Your task to perform on an android device: Go to sound settings Image 0: 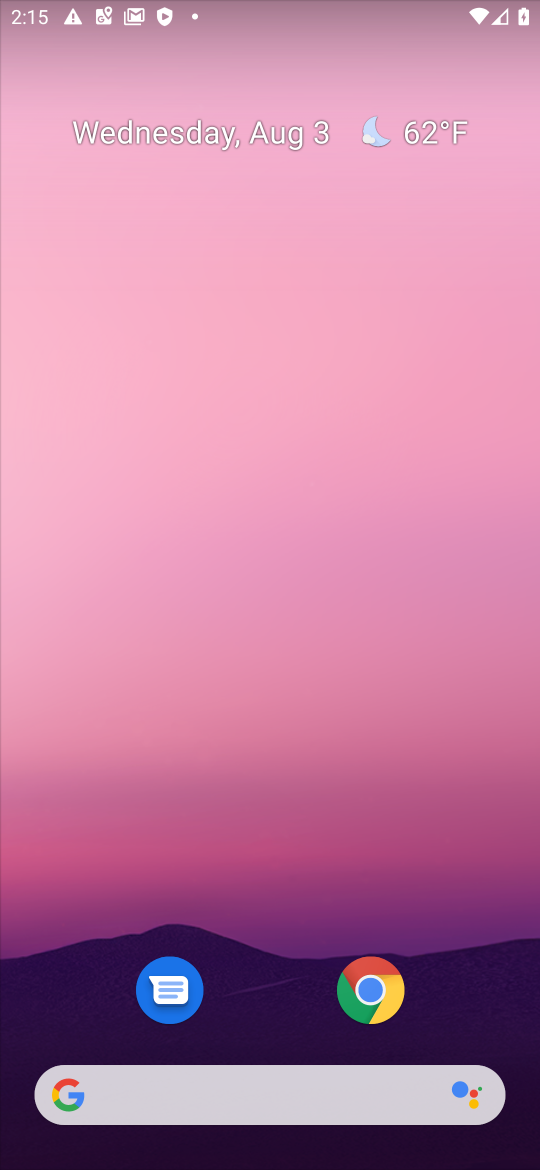
Step 0: drag from (230, 1003) to (258, 401)
Your task to perform on an android device: Go to sound settings Image 1: 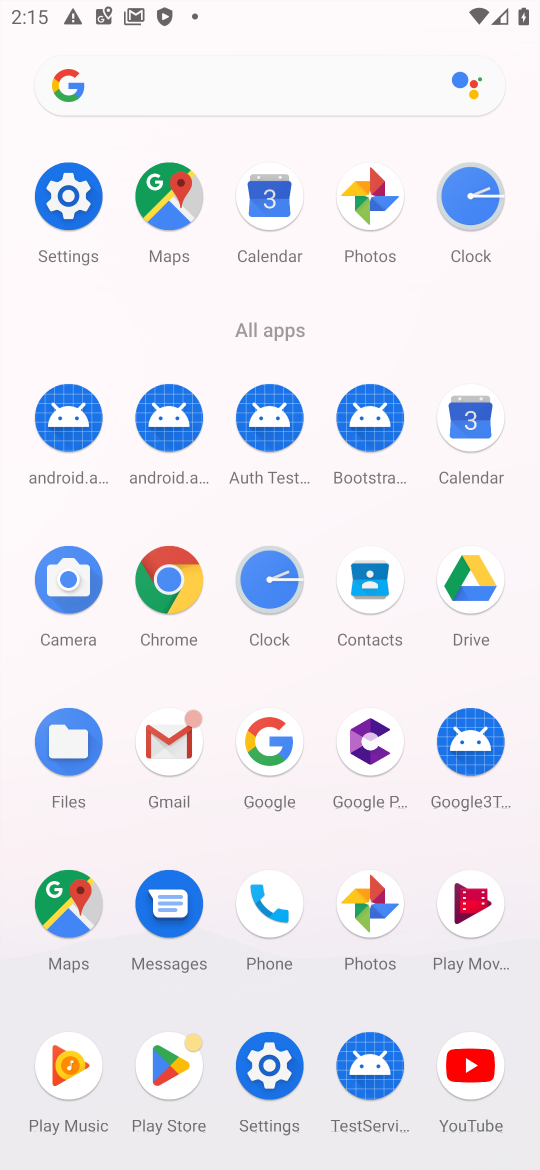
Step 1: click (76, 194)
Your task to perform on an android device: Go to sound settings Image 2: 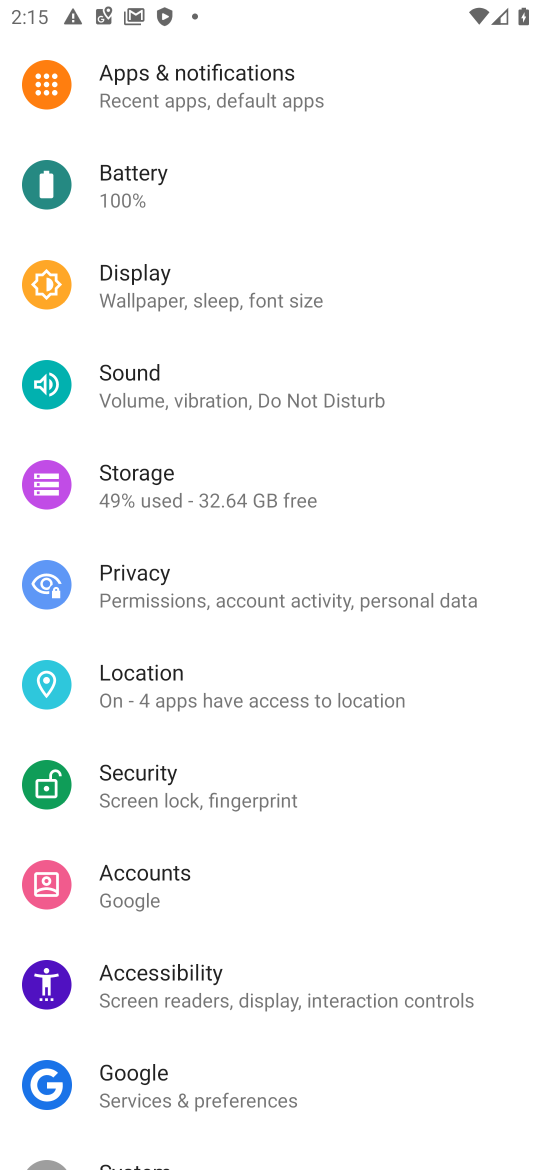
Step 2: click (129, 387)
Your task to perform on an android device: Go to sound settings Image 3: 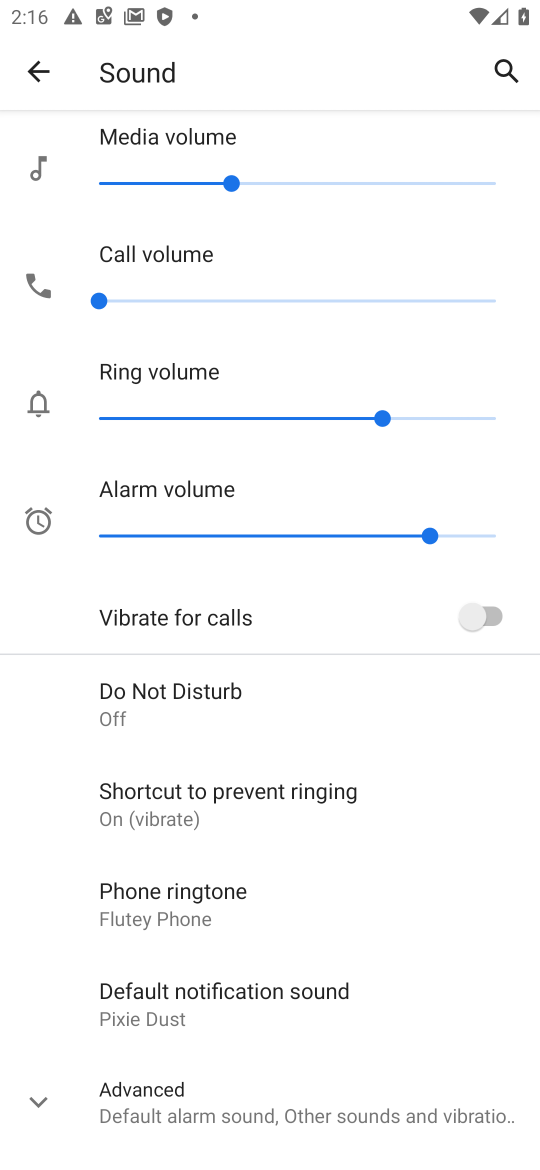
Step 3: click (157, 1087)
Your task to perform on an android device: Go to sound settings Image 4: 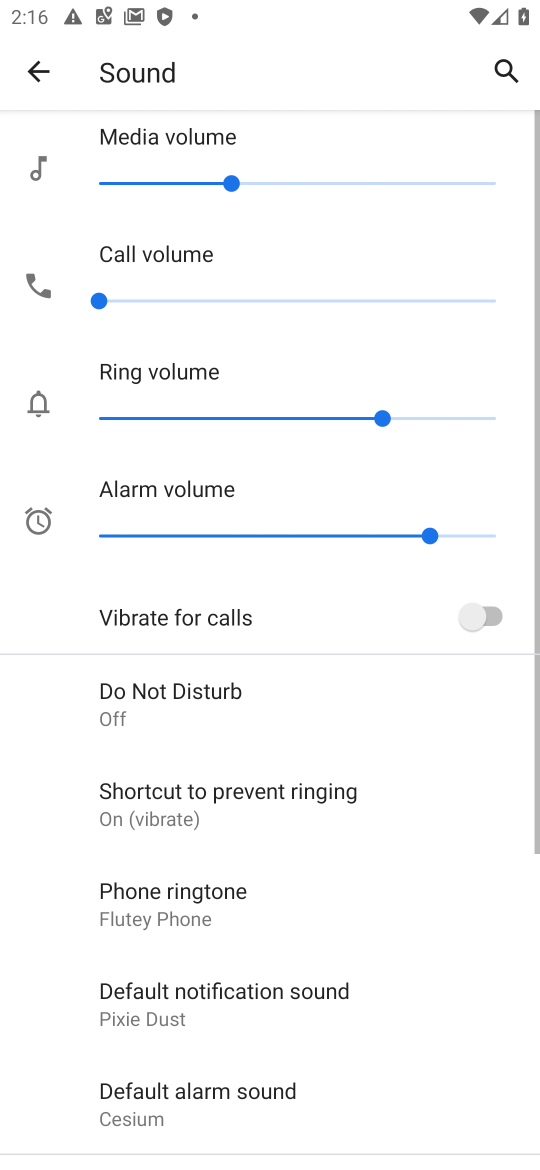
Step 4: task complete